Your task to perform on an android device: turn vacation reply on in the gmail app Image 0: 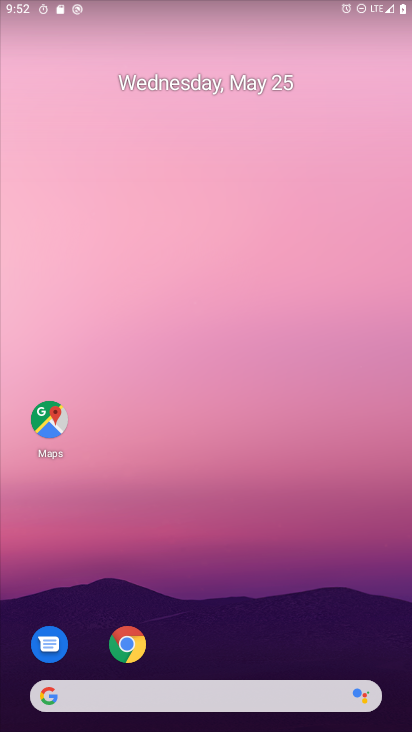
Step 0: drag from (325, 640) to (272, 68)
Your task to perform on an android device: turn vacation reply on in the gmail app Image 1: 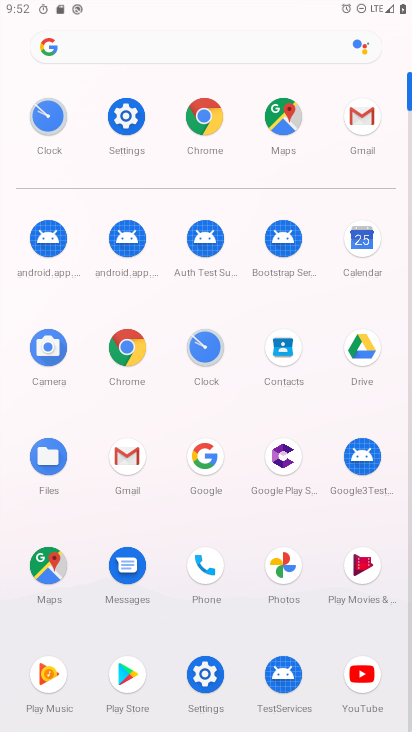
Step 1: click (131, 451)
Your task to perform on an android device: turn vacation reply on in the gmail app Image 2: 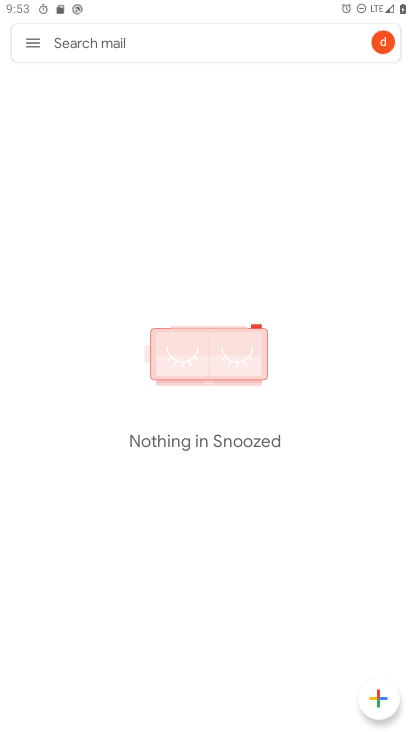
Step 2: click (32, 37)
Your task to perform on an android device: turn vacation reply on in the gmail app Image 3: 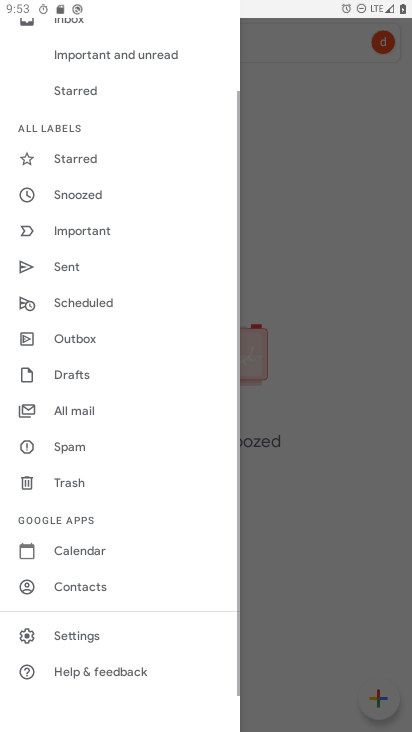
Step 3: click (87, 642)
Your task to perform on an android device: turn vacation reply on in the gmail app Image 4: 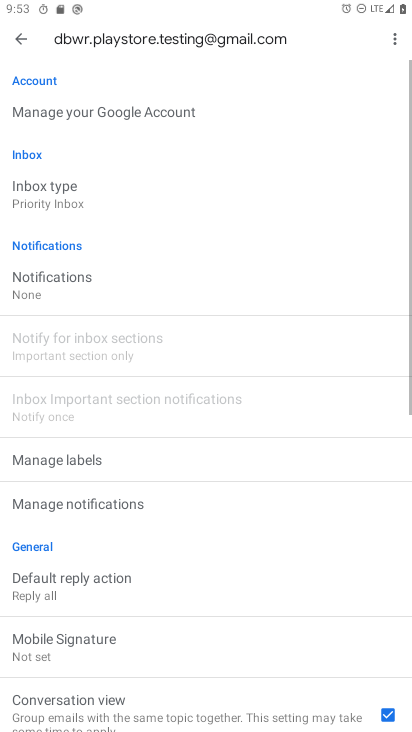
Step 4: drag from (90, 640) to (196, 68)
Your task to perform on an android device: turn vacation reply on in the gmail app Image 5: 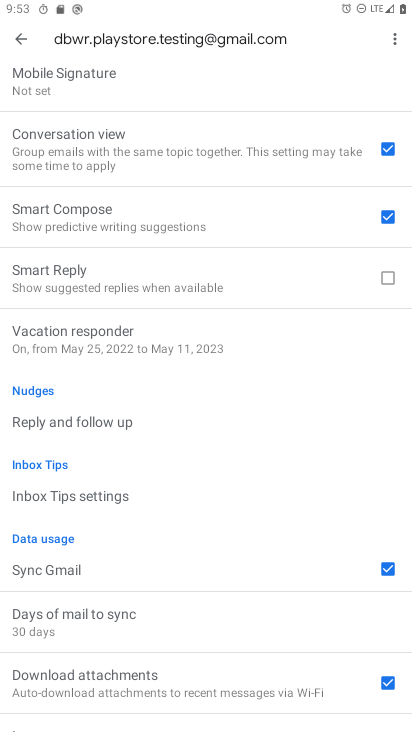
Step 5: click (144, 340)
Your task to perform on an android device: turn vacation reply on in the gmail app Image 6: 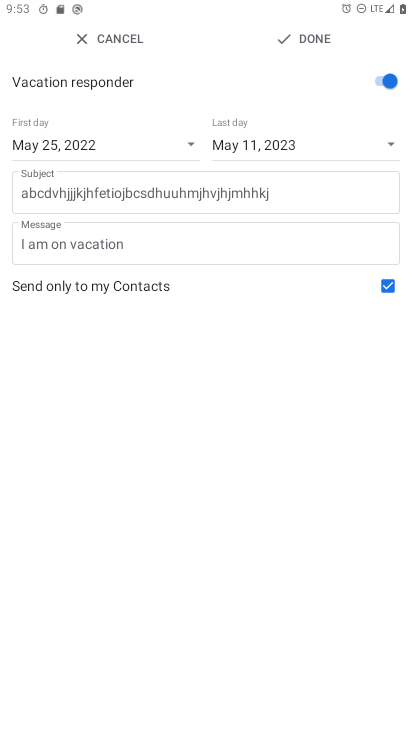
Step 6: task complete